Your task to perform on an android device: Show the shopping cart on walmart.com. Add "energizer triple a" to the cart on walmart.com, then select checkout. Image 0: 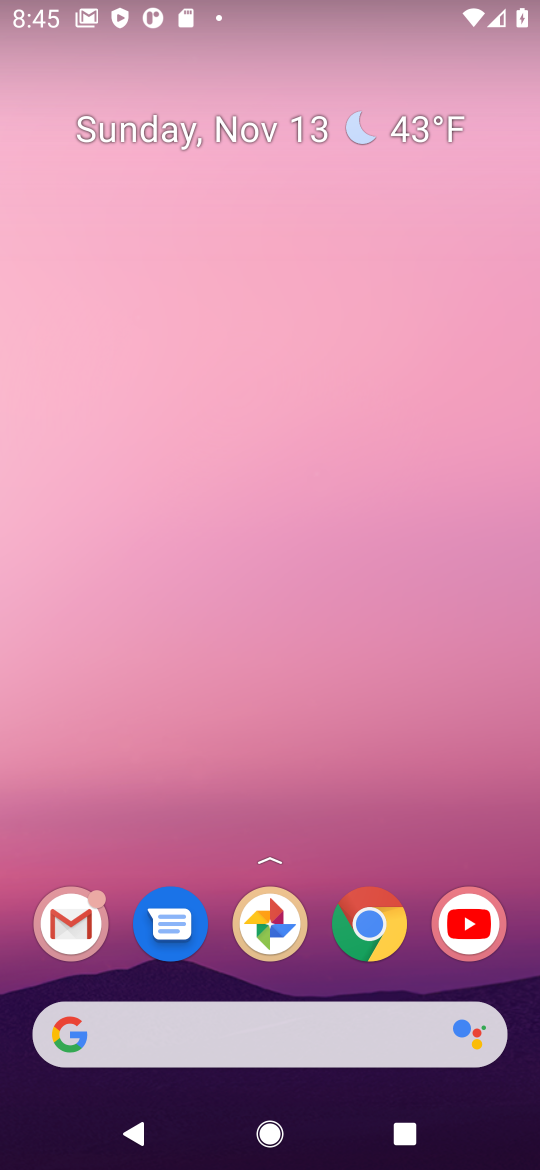
Step 0: click (371, 928)
Your task to perform on an android device: Show the shopping cart on walmart.com. Add "energizer triple a" to the cart on walmart.com, then select checkout. Image 1: 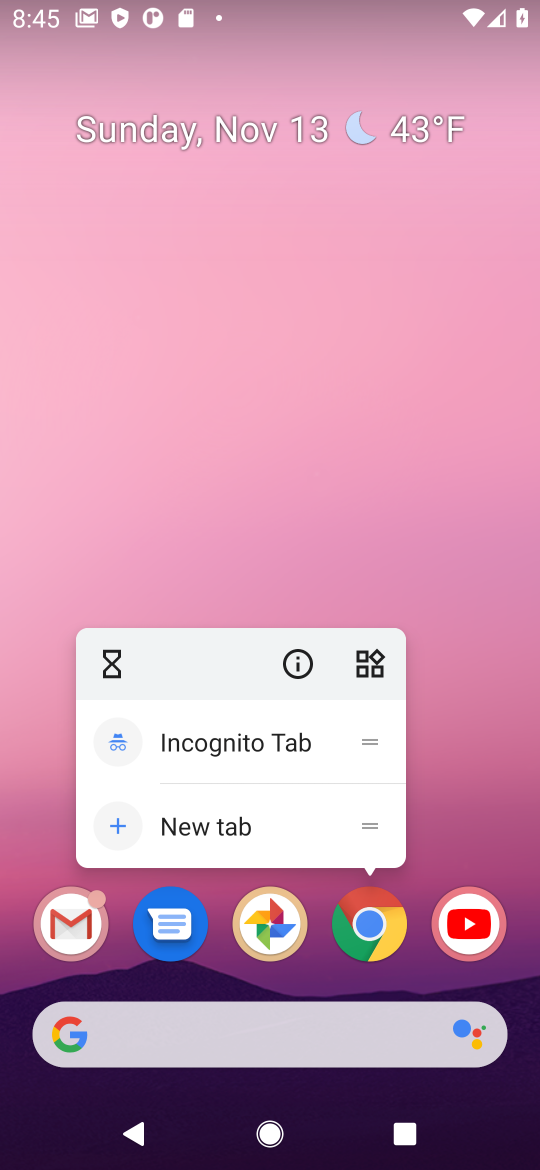
Step 1: click (371, 928)
Your task to perform on an android device: Show the shopping cart on walmart.com. Add "energizer triple a" to the cart on walmart.com, then select checkout. Image 2: 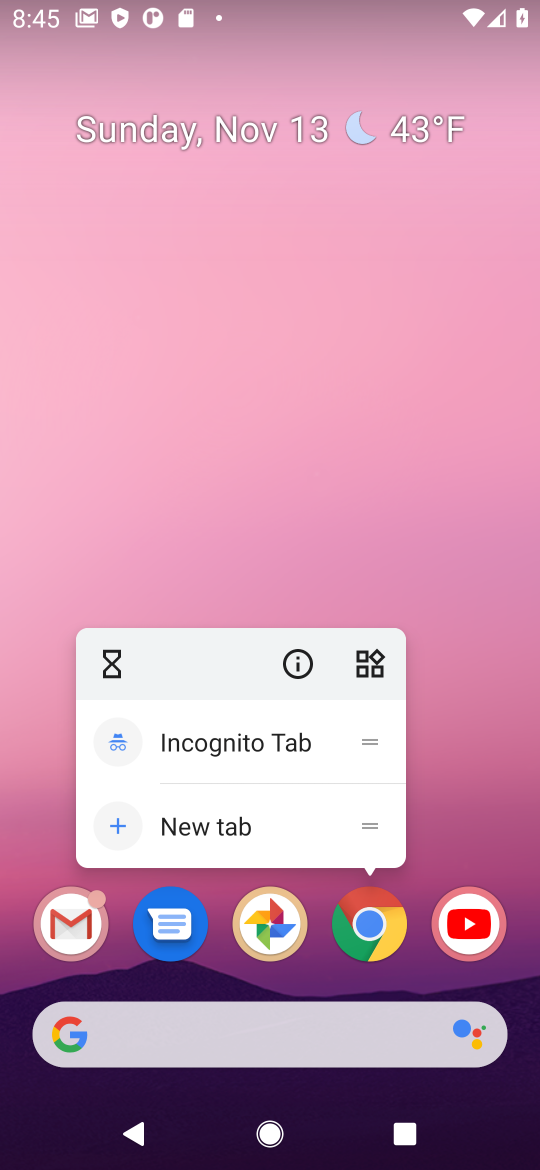
Step 2: click (371, 928)
Your task to perform on an android device: Show the shopping cart on walmart.com. Add "energizer triple a" to the cart on walmart.com, then select checkout. Image 3: 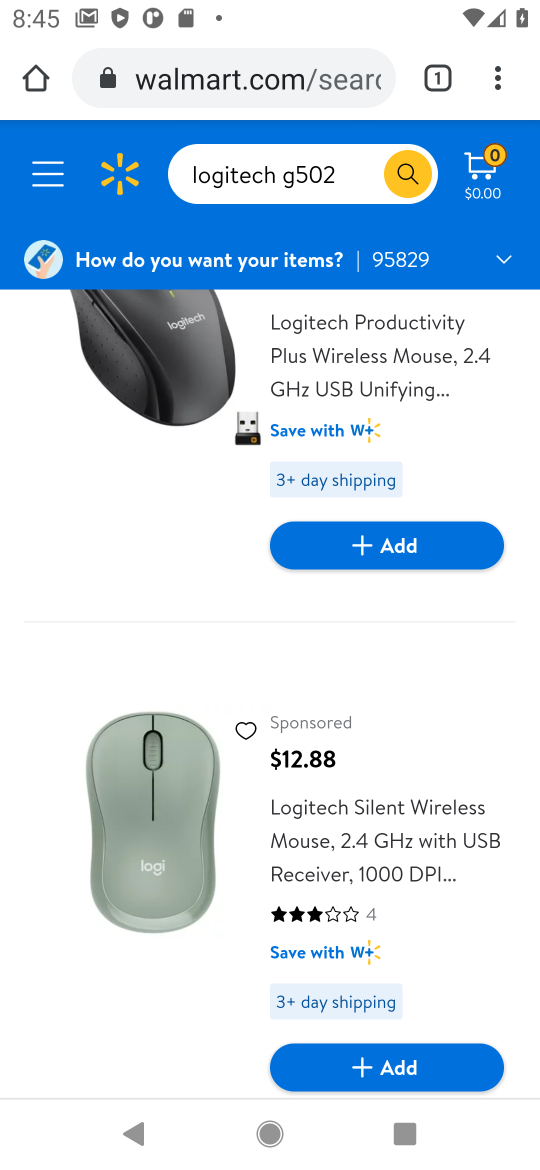
Step 3: click (347, 165)
Your task to perform on an android device: Show the shopping cart on walmart.com. Add "energizer triple a" to the cart on walmart.com, then select checkout. Image 4: 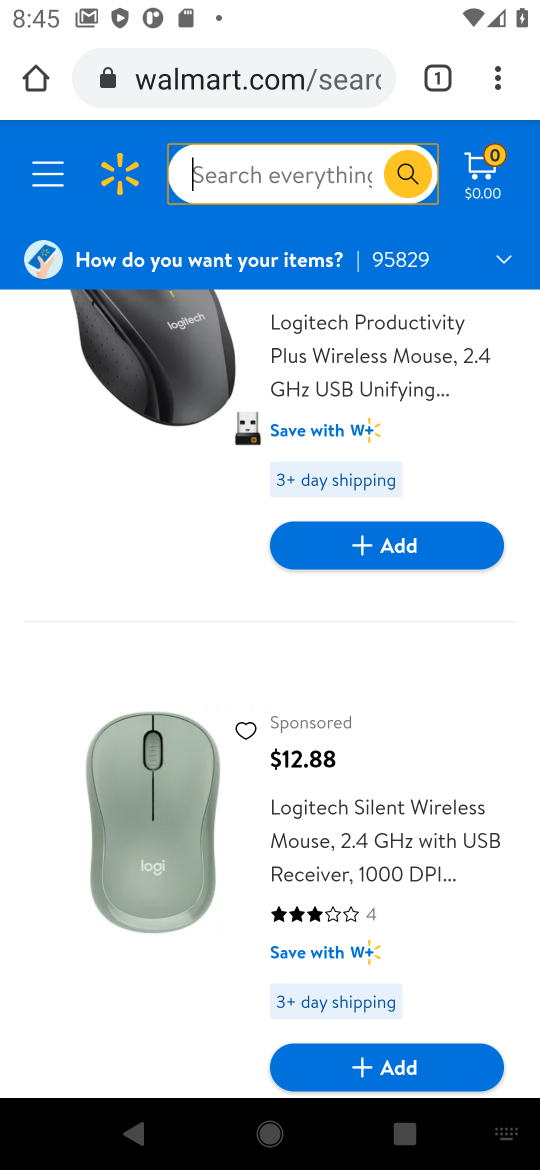
Step 4: click (319, 169)
Your task to perform on an android device: Show the shopping cart on walmart.com. Add "energizer triple a" to the cart on walmart.com, then select checkout. Image 5: 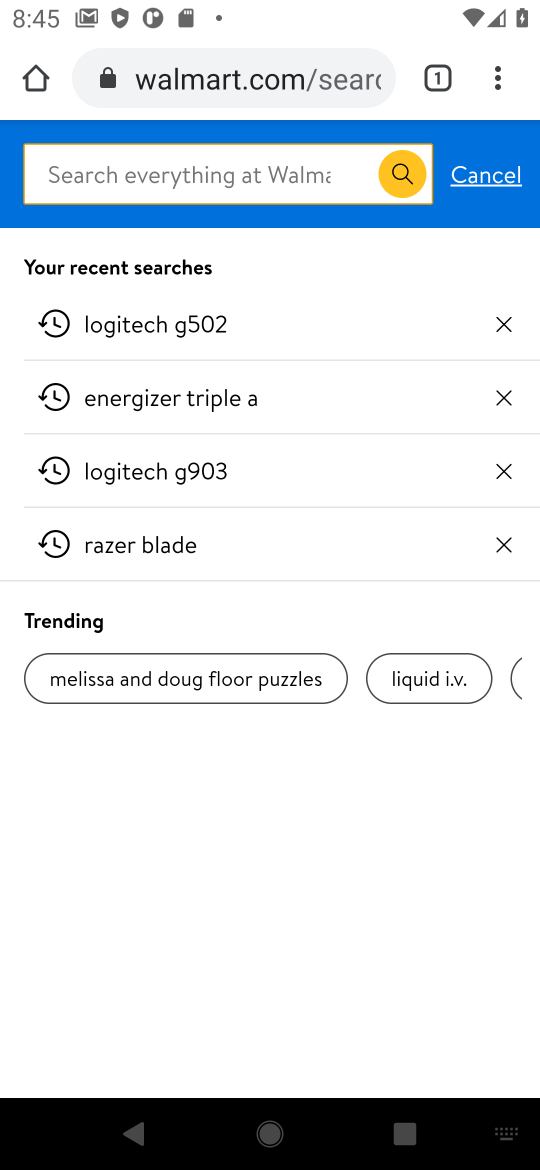
Step 5: click (182, 400)
Your task to perform on an android device: Show the shopping cart on walmart.com. Add "energizer triple a" to the cart on walmart.com, then select checkout. Image 6: 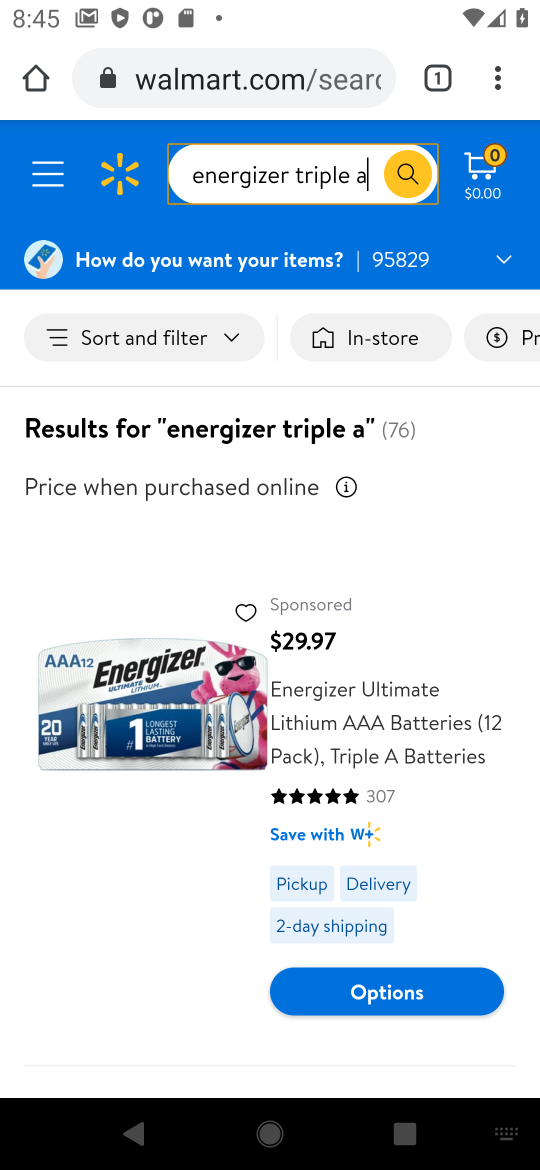
Step 6: task complete